Your task to perform on an android device: Search for seafood restaurants on Google Maps Image 0: 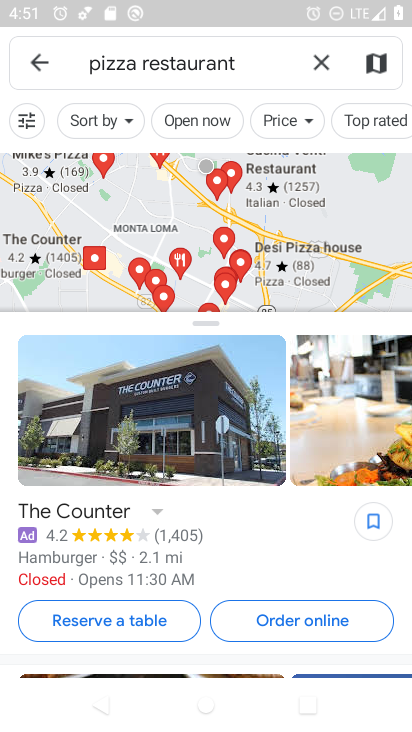
Step 0: click (322, 58)
Your task to perform on an android device: Search for seafood restaurants on Google Maps Image 1: 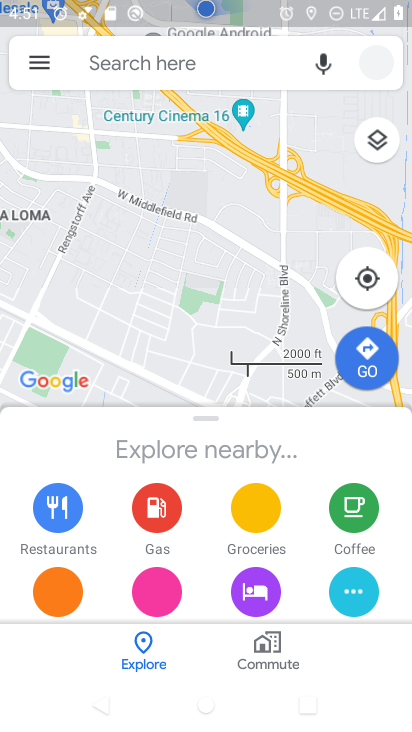
Step 1: click (227, 69)
Your task to perform on an android device: Search for seafood restaurants on Google Maps Image 2: 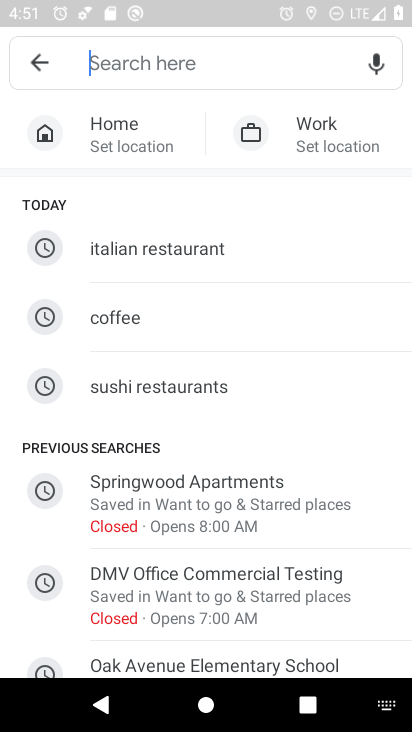
Step 2: type "seafood restaurants"
Your task to perform on an android device: Search for seafood restaurants on Google Maps Image 3: 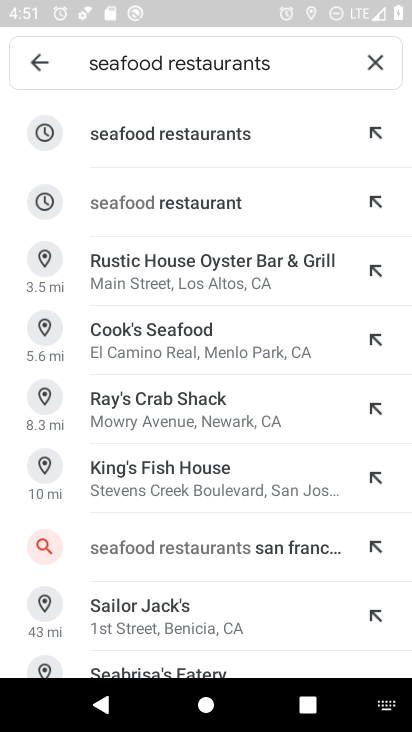
Step 3: click (225, 138)
Your task to perform on an android device: Search for seafood restaurants on Google Maps Image 4: 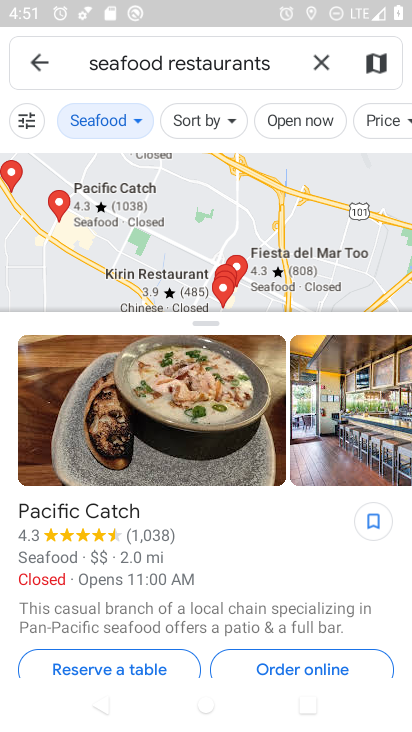
Step 4: task complete